Your task to perform on an android device: turn notification dots off Image 0: 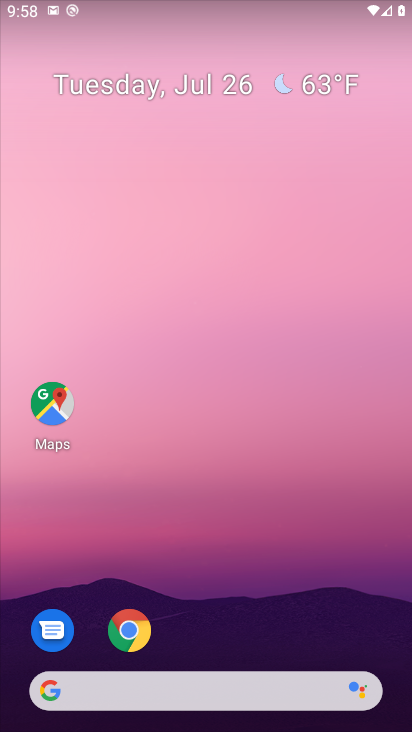
Step 0: click (122, 629)
Your task to perform on an android device: turn notification dots off Image 1: 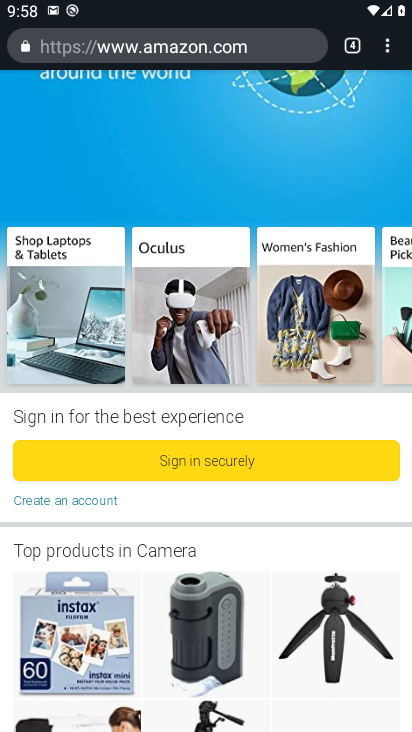
Step 1: press home button
Your task to perform on an android device: turn notification dots off Image 2: 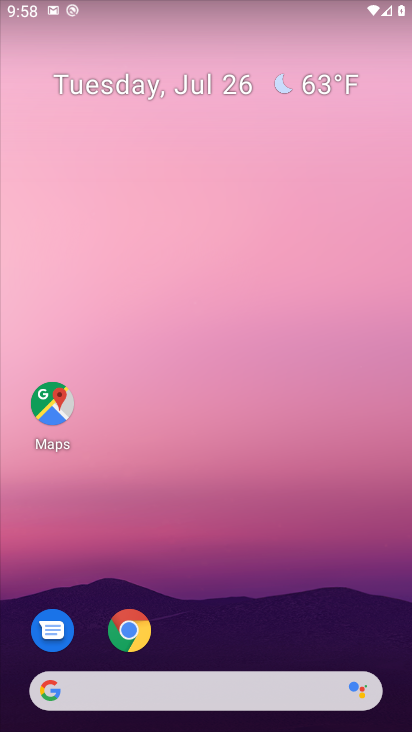
Step 2: drag from (213, 649) to (284, 74)
Your task to perform on an android device: turn notification dots off Image 3: 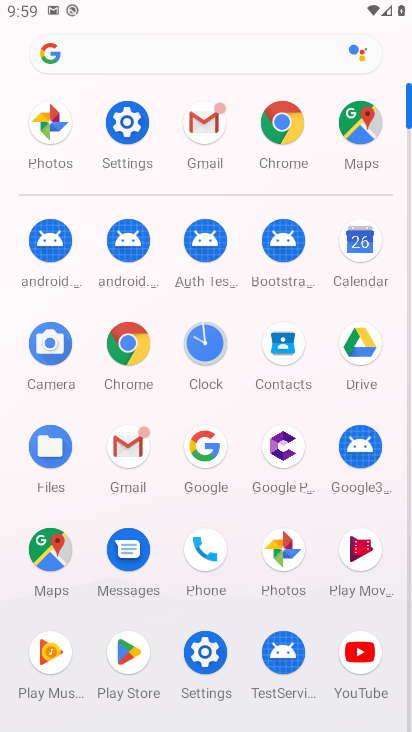
Step 3: click (120, 120)
Your task to perform on an android device: turn notification dots off Image 4: 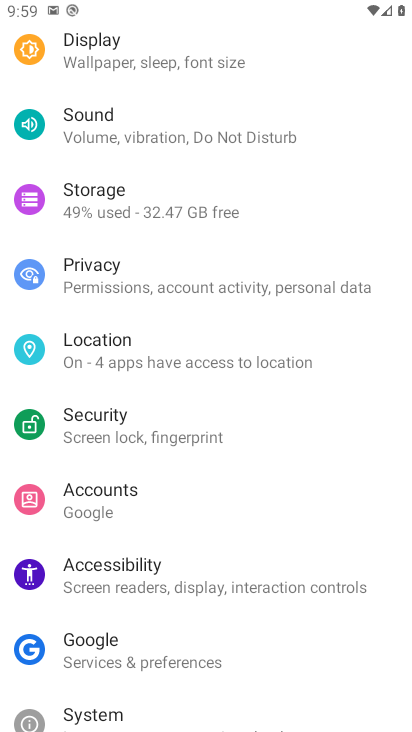
Step 4: drag from (108, 111) to (184, 462)
Your task to perform on an android device: turn notification dots off Image 5: 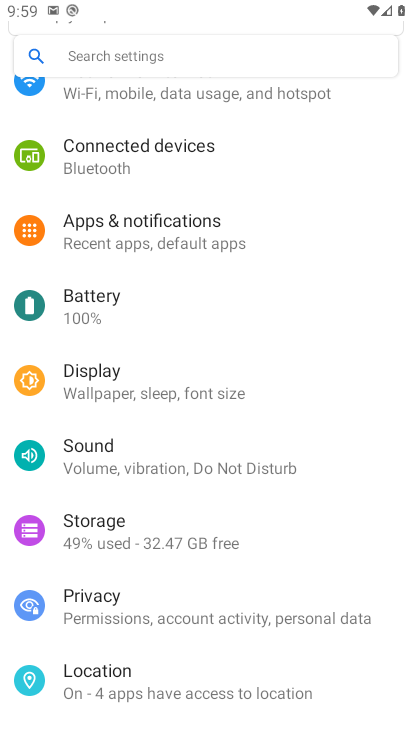
Step 5: click (137, 229)
Your task to perform on an android device: turn notification dots off Image 6: 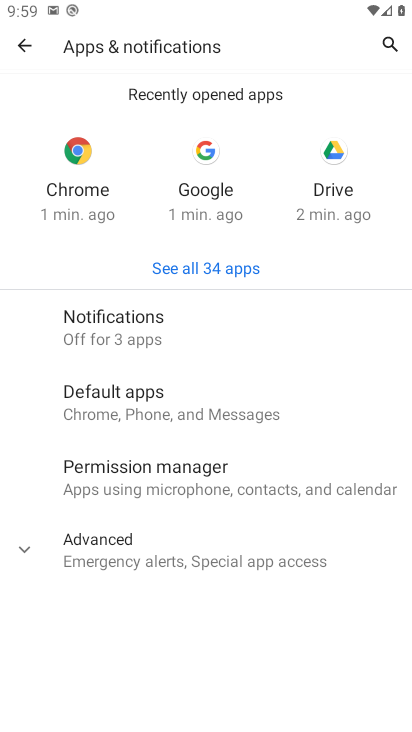
Step 6: click (128, 326)
Your task to perform on an android device: turn notification dots off Image 7: 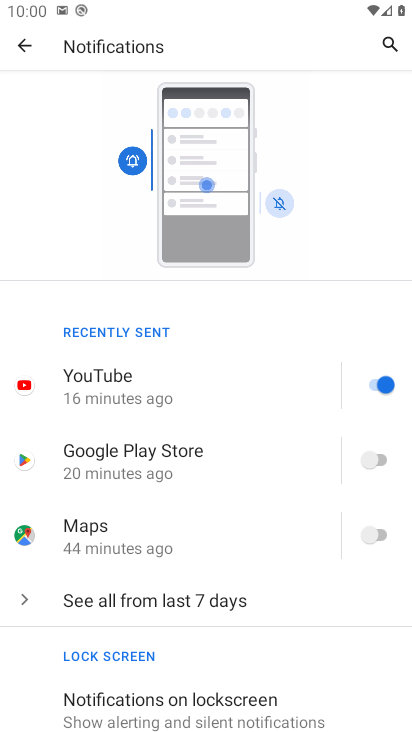
Step 7: drag from (192, 650) to (221, 203)
Your task to perform on an android device: turn notification dots off Image 8: 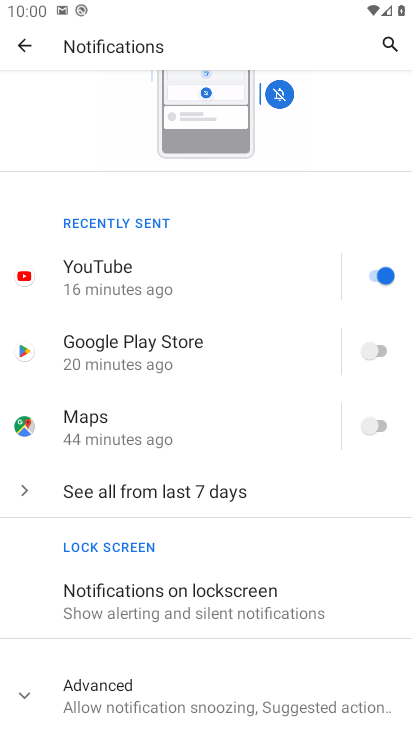
Step 8: click (119, 689)
Your task to perform on an android device: turn notification dots off Image 9: 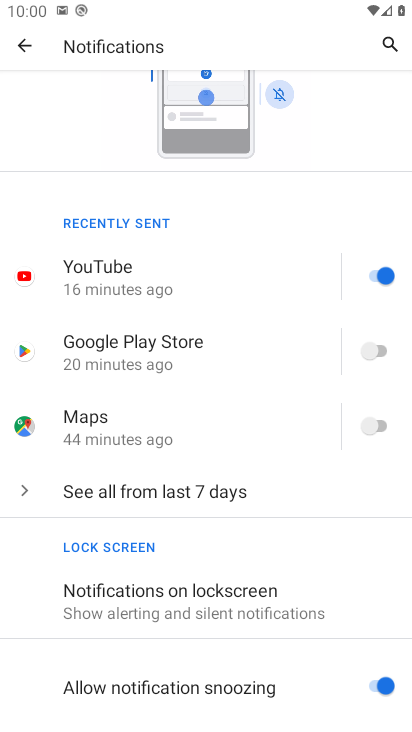
Step 9: drag from (186, 660) to (177, 261)
Your task to perform on an android device: turn notification dots off Image 10: 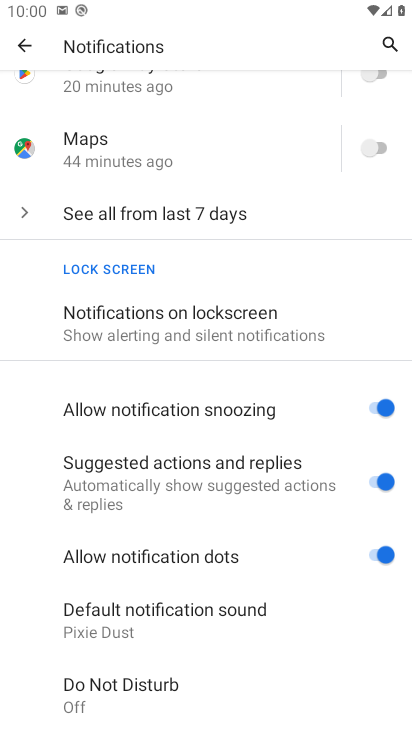
Step 10: click (374, 551)
Your task to perform on an android device: turn notification dots off Image 11: 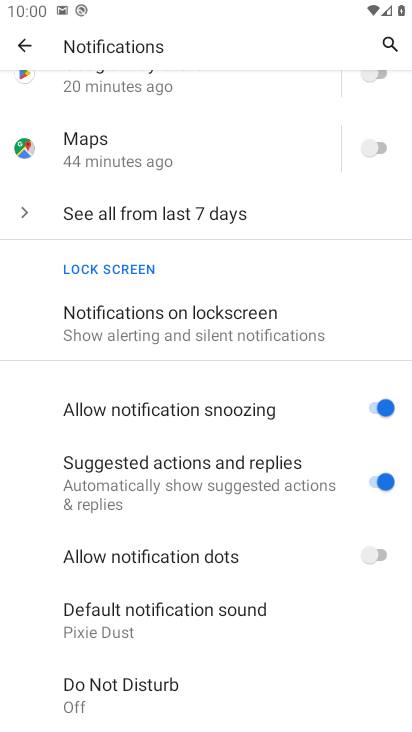
Step 11: task complete